Your task to perform on an android device: What is the recent news? Image 0: 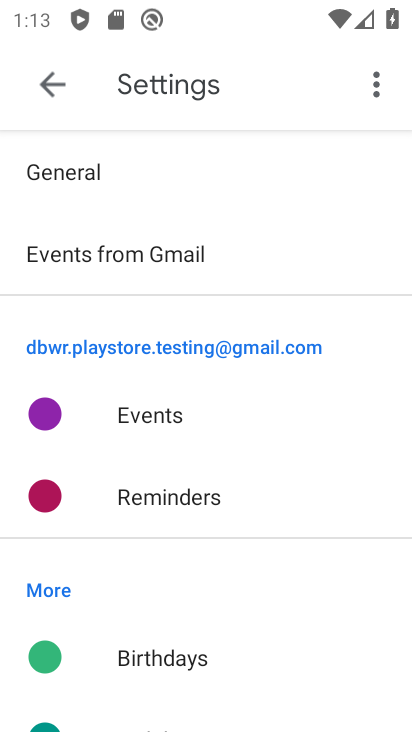
Step 0: press home button
Your task to perform on an android device: What is the recent news? Image 1: 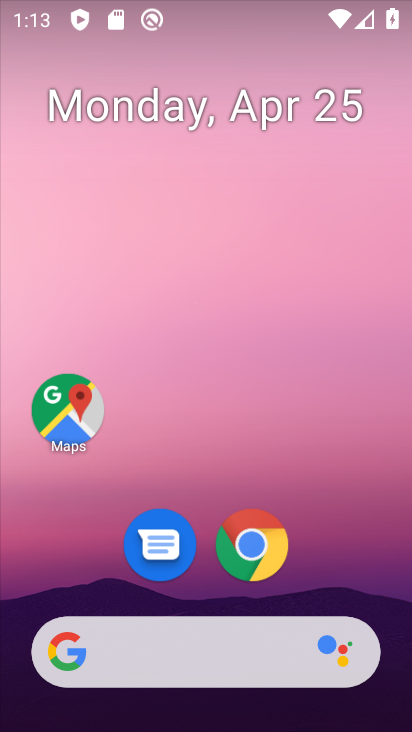
Step 1: click (253, 547)
Your task to perform on an android device: What is the recent news? Image 2: 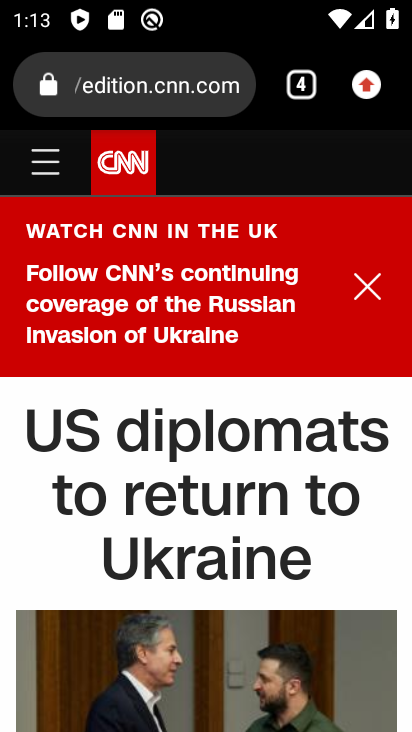
Step 2: click (308, 90)
Your task to perform on an android device: What is the recent news? Image 3: 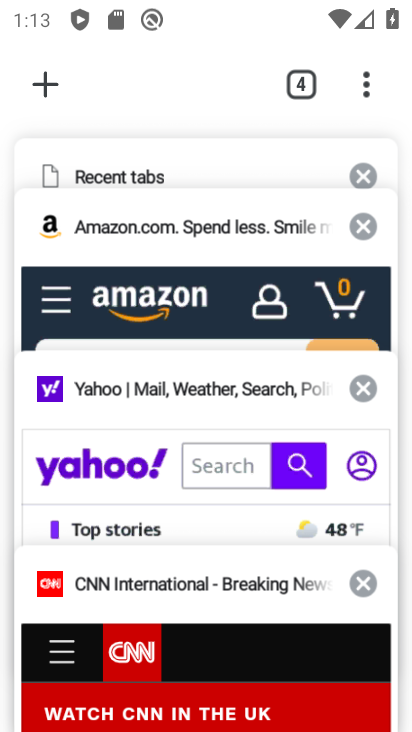
Step 3: click (39, 84)
Your task to perform on an android device: What is the recent news? Image 4: 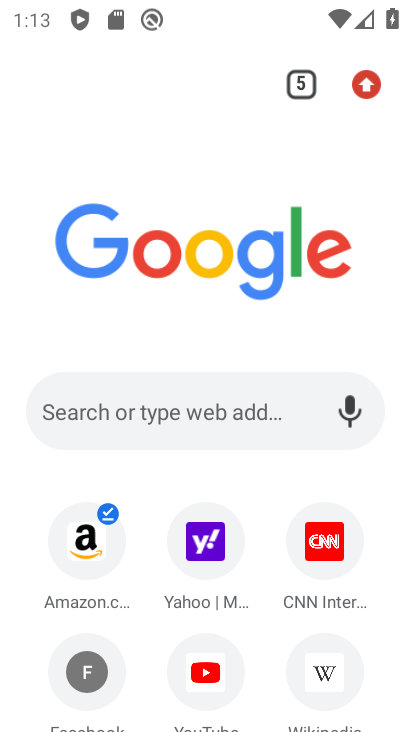
Step 4: click (221, 413)
Your task to perform on an android device: What is the recent news? Image 5: 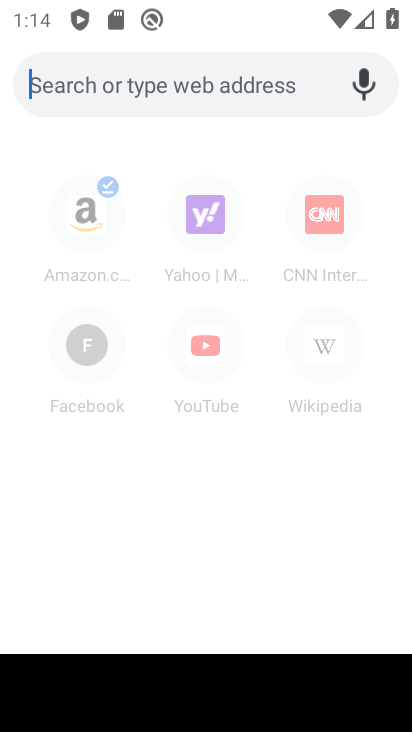
Step 5: type "recent news"
Your task to perform on an android device: What is the recent news? Image 6: 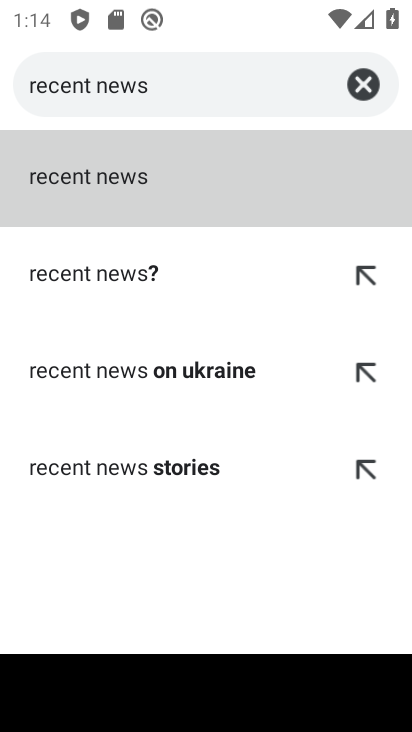
Step 6: click (178, 185)
Your task to perform on an android device: What is the recent news? Image 7: 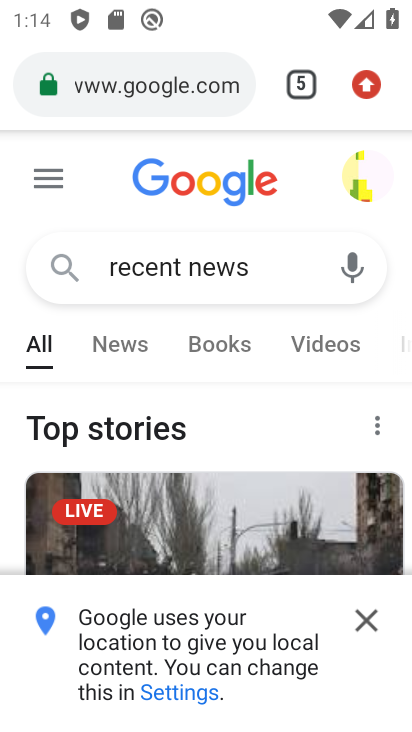
Step 7: click (130, 342)
Your task to perform on an android device: What is the recent news? Image 8: 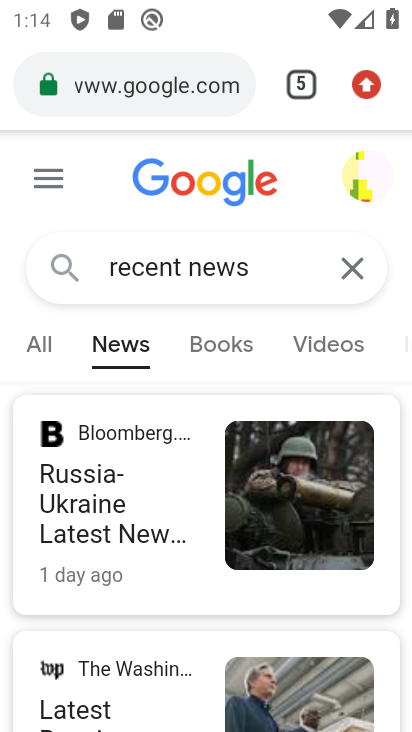
Step 8: task complete